Your task to perform on an android device: turn vacation reply on in the gmail app Image 0: 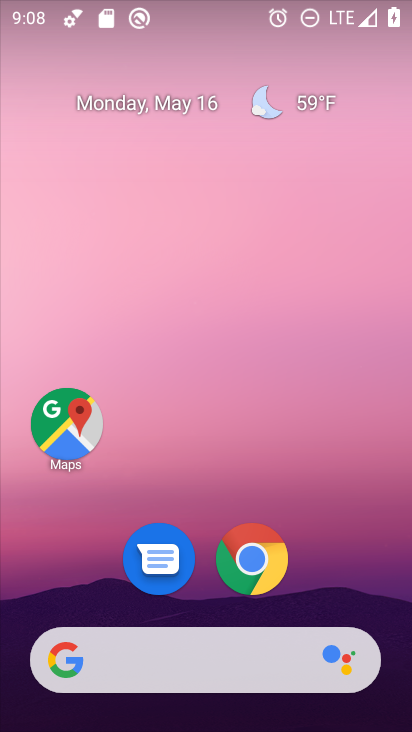
Step 0: drag from (371, 587) to (358, 97)
Your task to perform on an android device: turn vacation reply on in the gmail app Image 1: 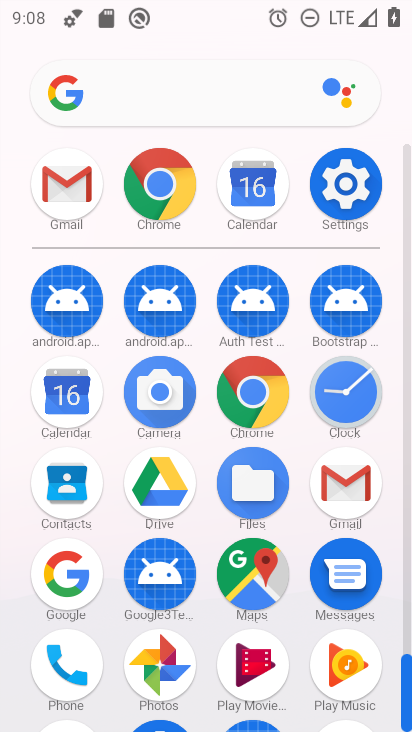
Step 1: click (353, 486)
Your task to perform on an android device: turn vacation reply on in the gmail app Image 2: 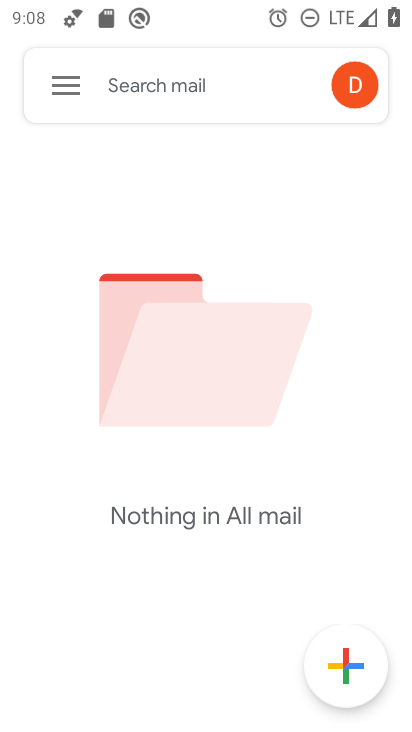
Step 2: click (68, 90)
Your task to perform on an android device: turn vacation reply on in the gmail app Image 3: 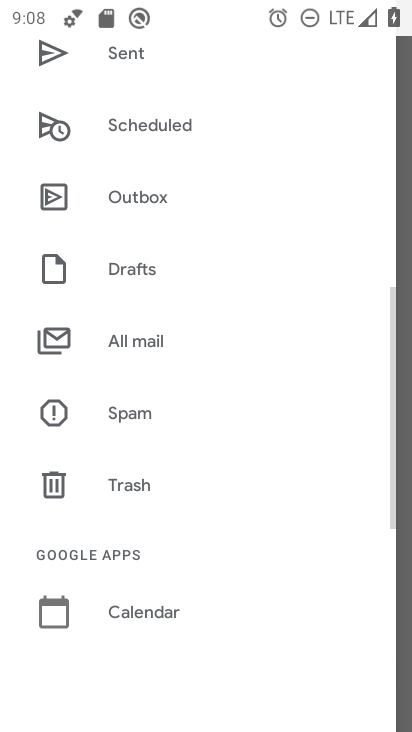
Step 3: drag from (229, 613) to (316, 202)
Your task to perform on an android device: turn vacation reply on in the gmail app Image 4: 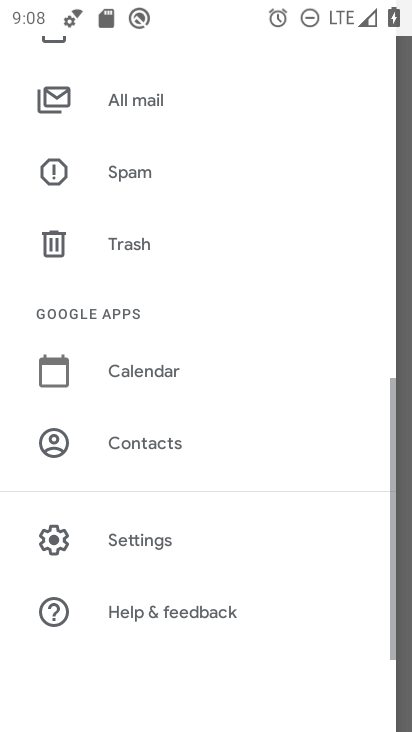
Step 4: click (170, 536)
Your task to perform on an android device: turn vacation reply on in the gmail app Image 5: 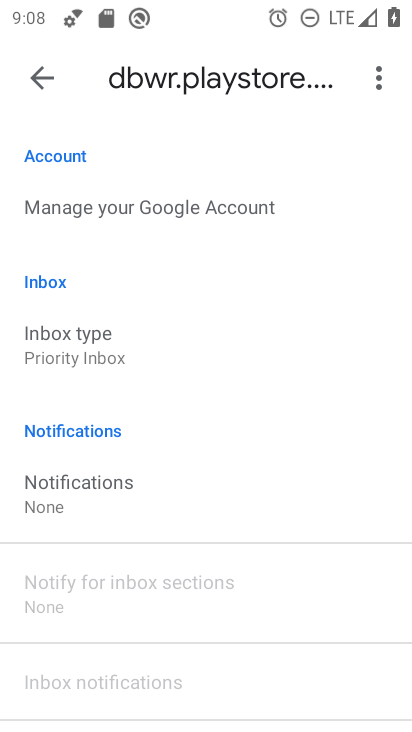
Step 5: task complete